Your task to perform on an android device: turn on wifi Image 0: 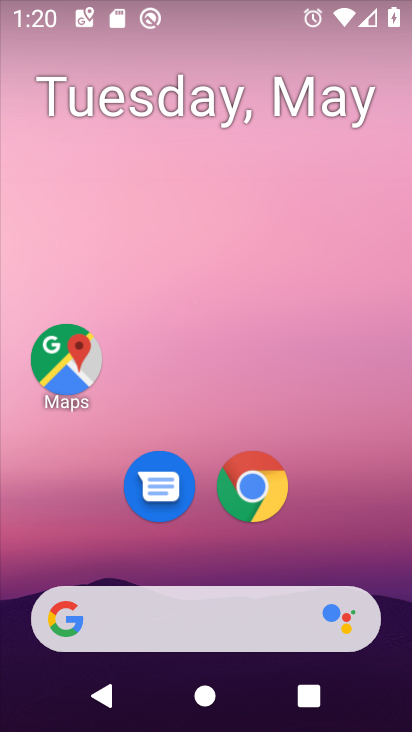
Step 0: drag from (211, 4) to (179, 465)
Your task to perform on an android device: turn on wifi Image 1: 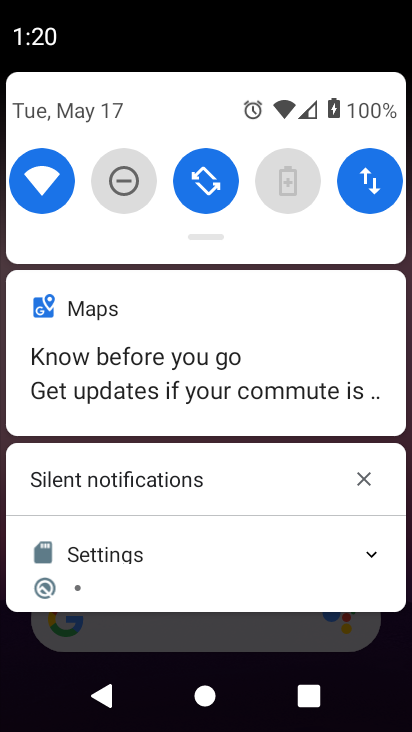
Step 1: task complete